Your task to perform on an android device: Go to network settings Image 0: 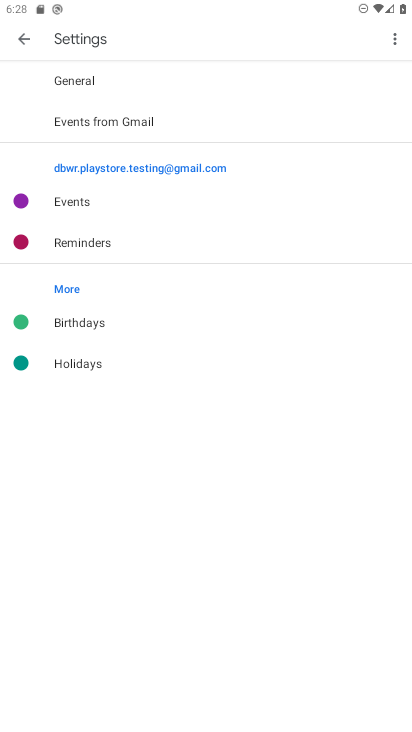
Step 0: press home button
Your task to perform on an android device: Go to network settings Image 1: 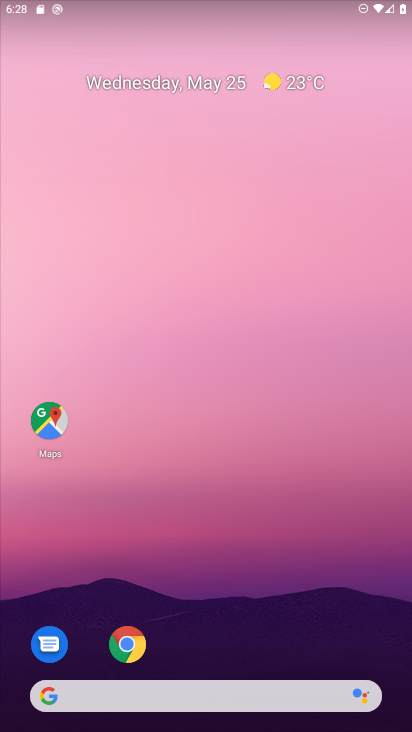
Step 1: drag from (332, 647) to (238, 1)
Your task to perform on an android device: Go to network settings Image 2: 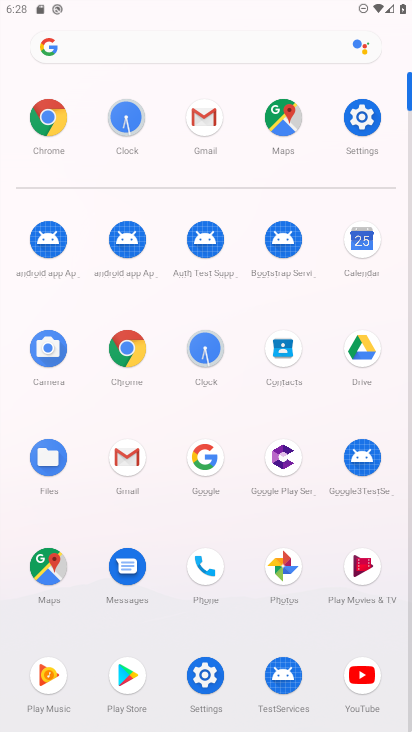
Step 2: click (360, 130)
Your task to perform on an android device: Go to network settings Image 3: 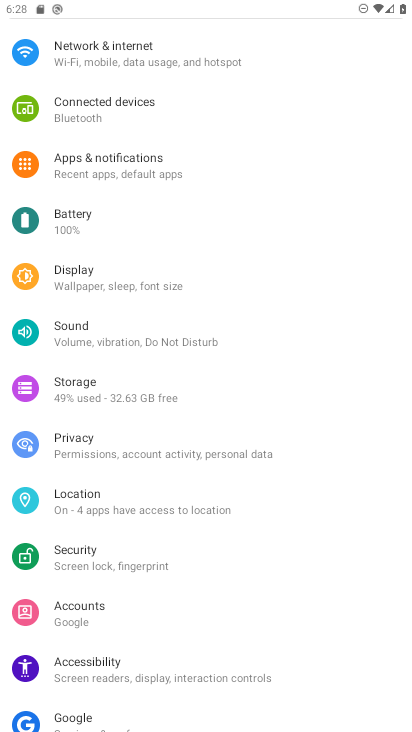
Step 3: click (167, 76)
Your task to perform on an android device: Go to network settings Image 4: 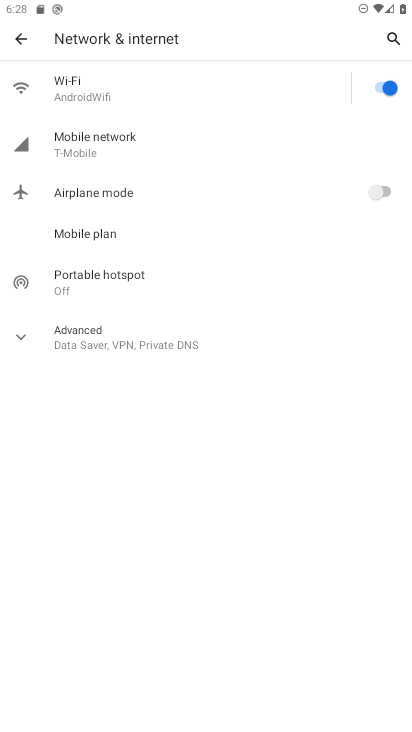
Step 4: task complete